Your task to perform on an android device: Search for 3d printer on AliExpress Image 0: 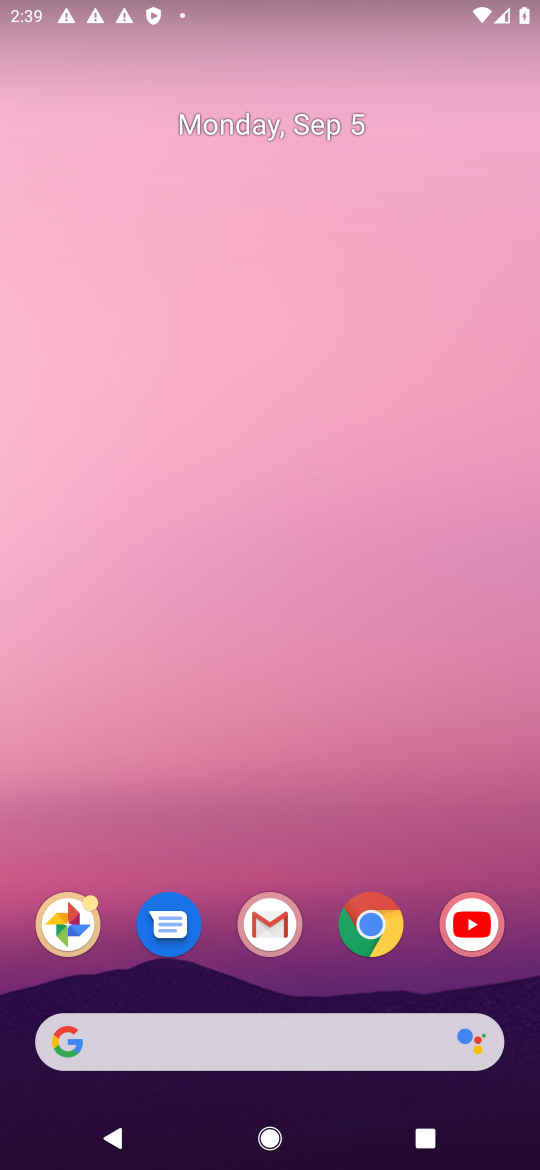
Step 0: drag from (156, 664) to (169, 420)
Your task to perform on an android device: Search for 3d printer on AliExpress Image 1: 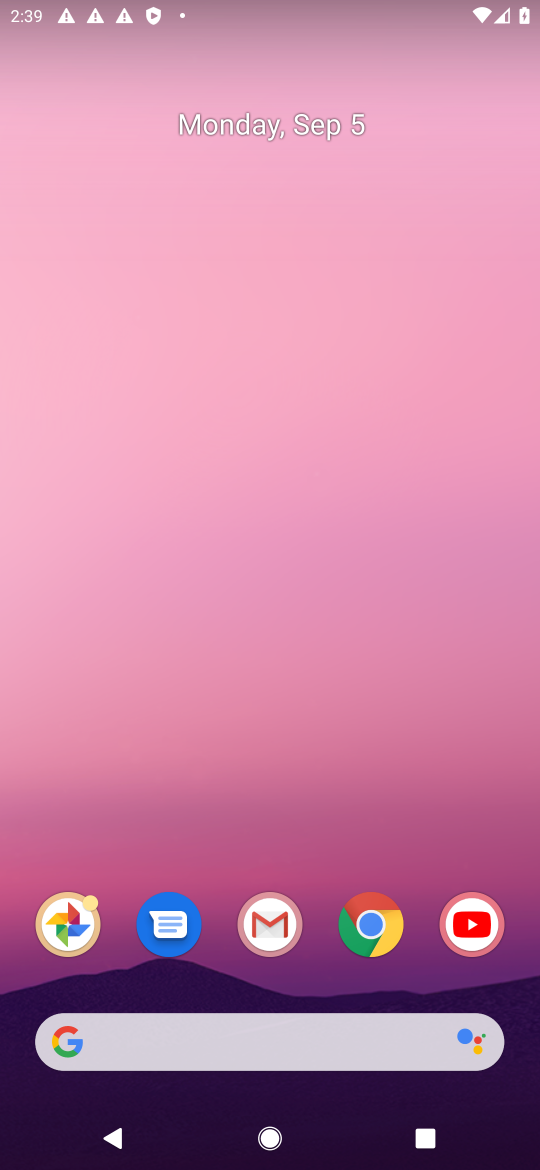
Step 1: drag from (309, 1006) to (309, 208)
Your task to perform on an android device: Search for 3d printer on AliExpress Image 2: 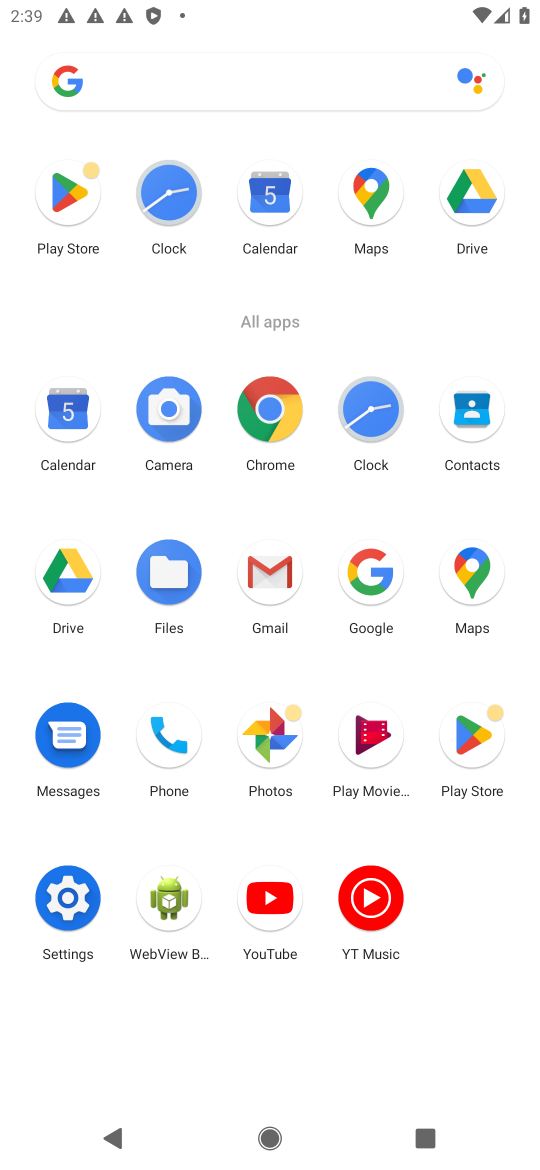
Step 2: click (272, 447)
Your task to perform on an android device: Search for 3d printer on AliExpress Image 3: 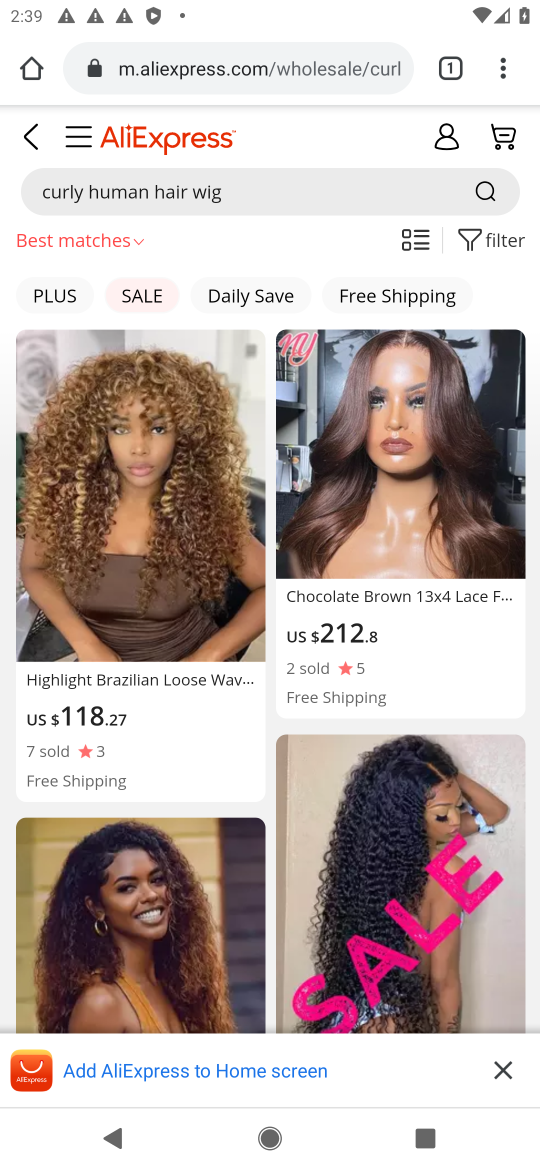
Step 3: click (367, 196)
Your task to perform on an android device: Search for 3d printer on AliExpress Image 4: 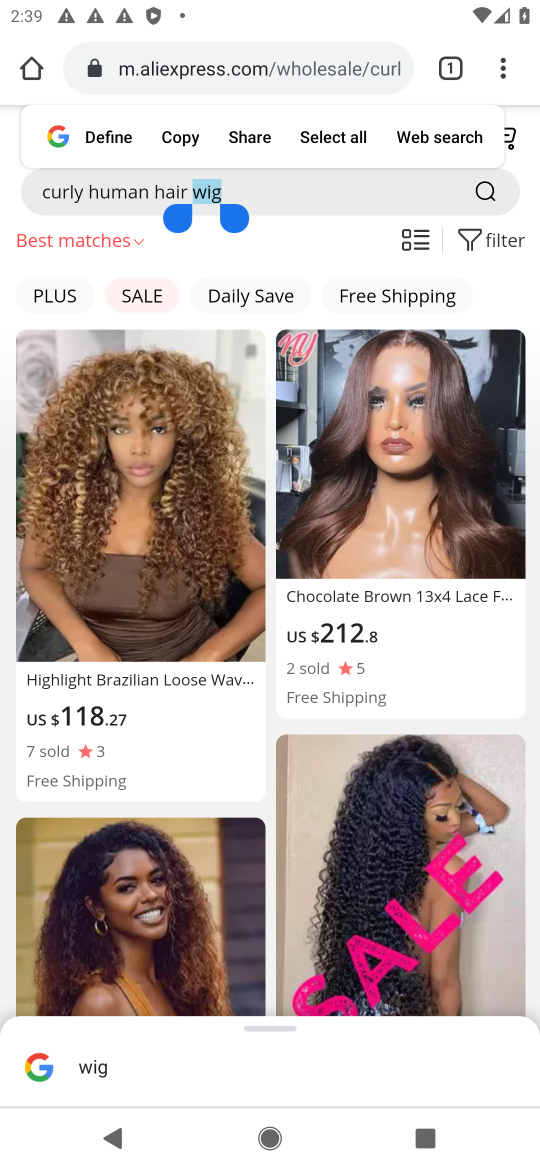
Step 4: click (387, 182)
Your task to perform on an android device: Search for 3d printer on AliExpress Image 5: 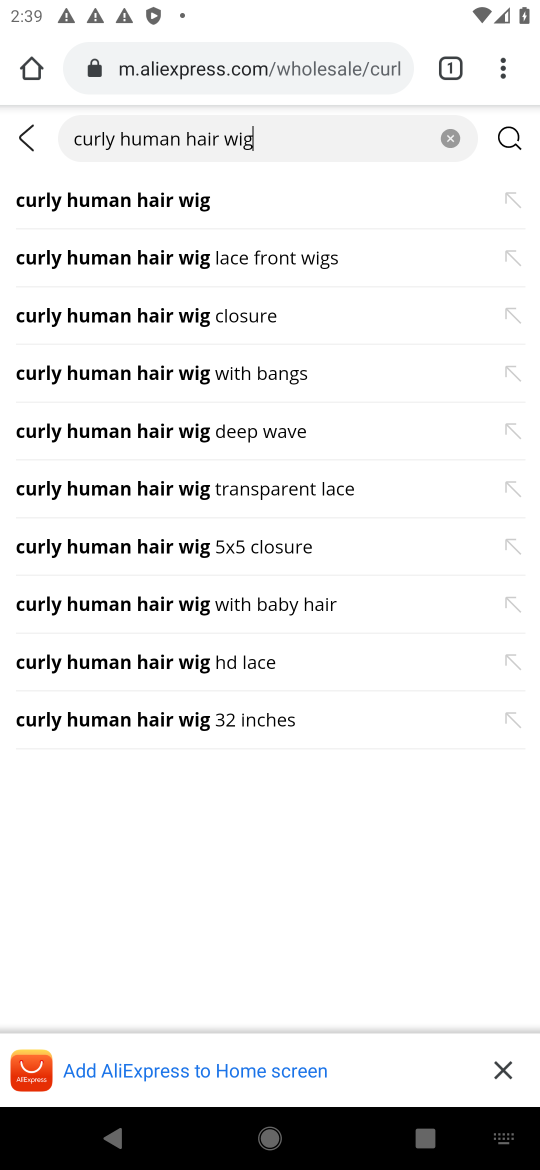
Step 5: click (449, 139)
Your task to perform on an android device: Search for 3d printer on AliExpress Image 6: 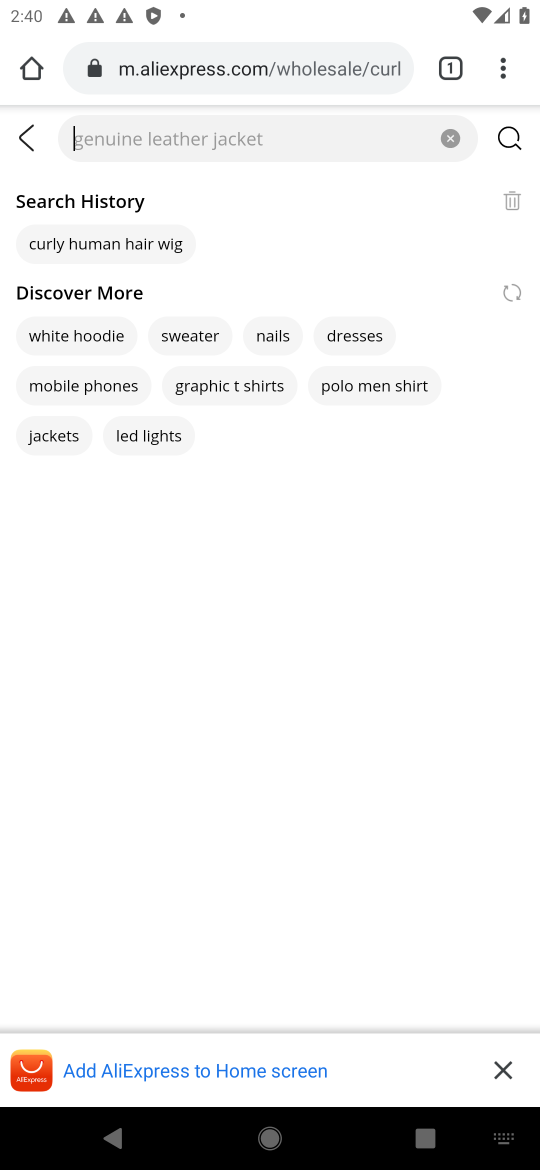
Step 6: type "3d printers"
Your task to perform on an android device: Search for 3d printer on AliExpress Image 7: 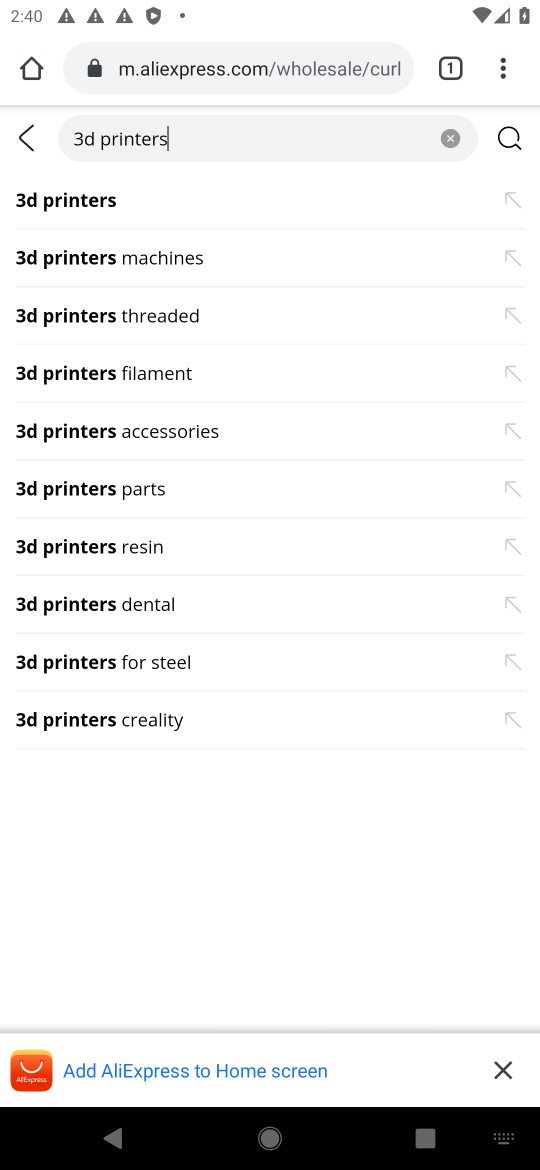
Step 7: click (125, 199)
Your task to perform on an android device: Search for 3d printer on AliExpress Image 8: 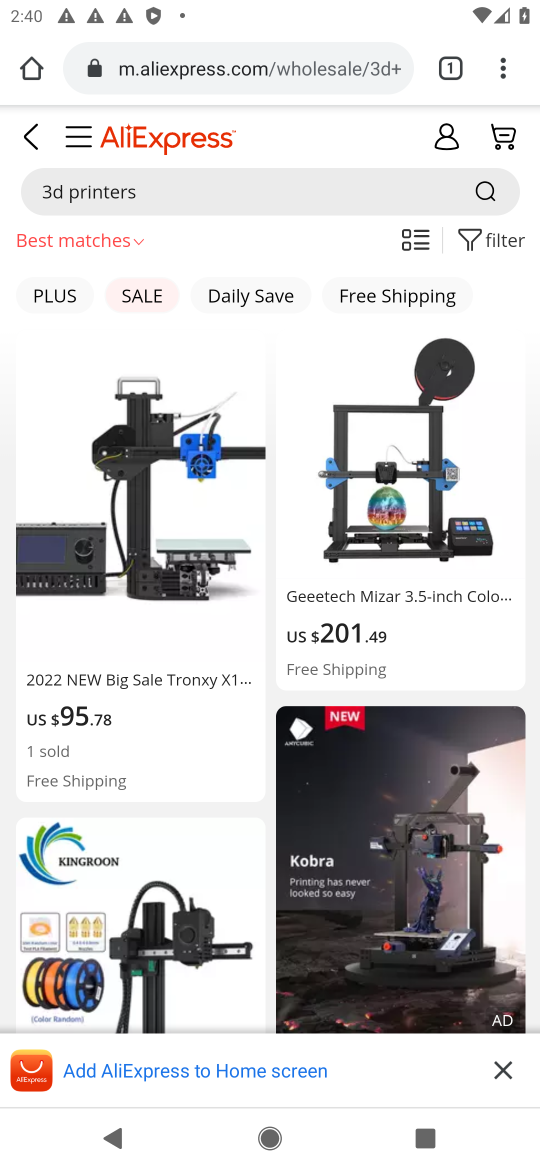
Step 8: task complete